Your task to perform on an android device: Go to Amazon Image 0: 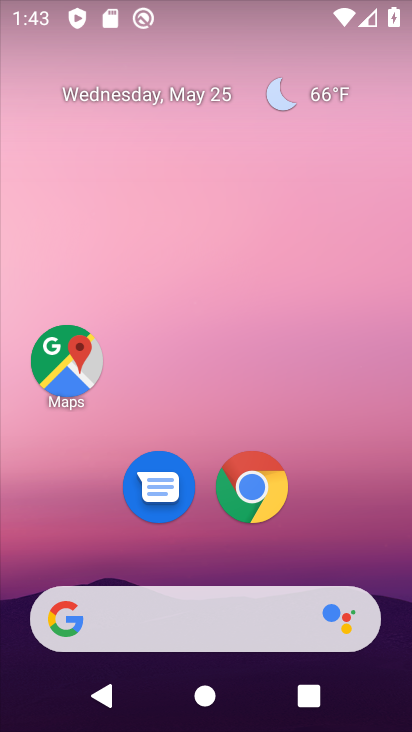
Step 0: click (255, 496)
Your task to perform on an android device: Go to Amazon Image 1: 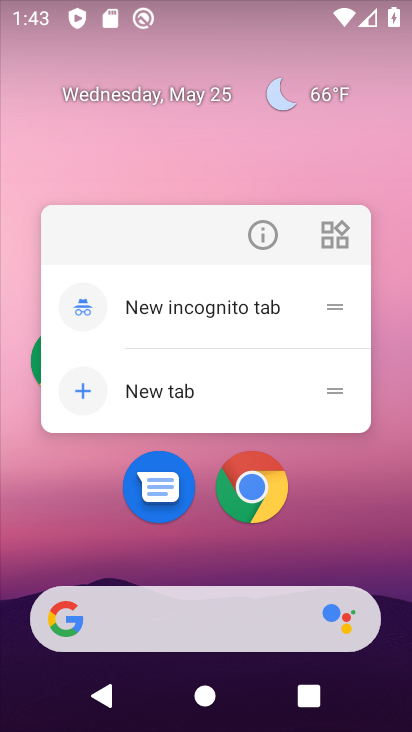
Step 1: click (261, 486)
Your task to perform on an android device: Go to Amazon Image 2: 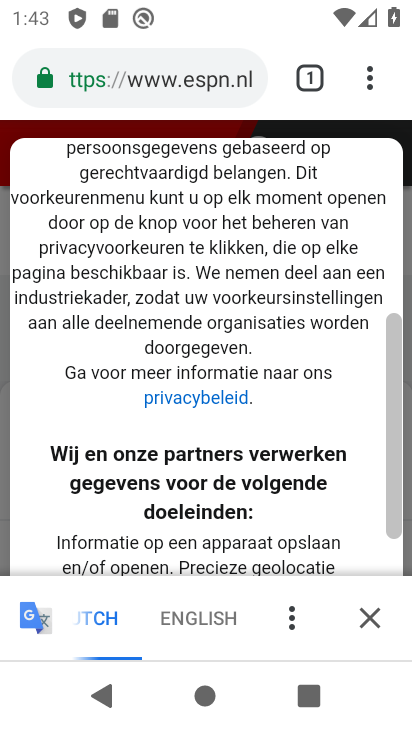
Step 2: click (308, 87)
Your task to perform on an android device: Go to Amazon Image 3: 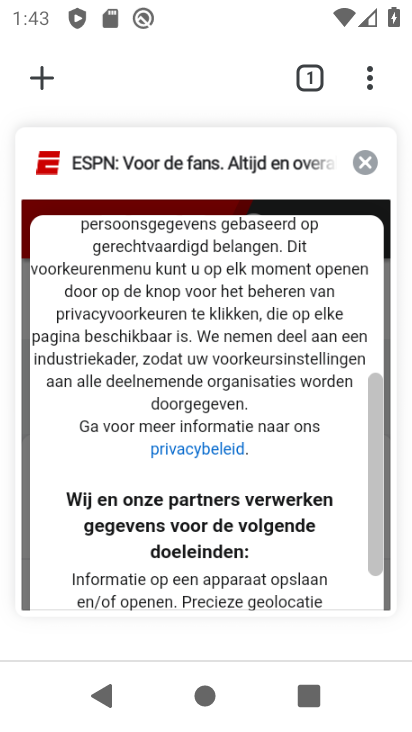
Step 3: click (45, 76)
Your task to perform on an android device: Go to Amazon Image 4: 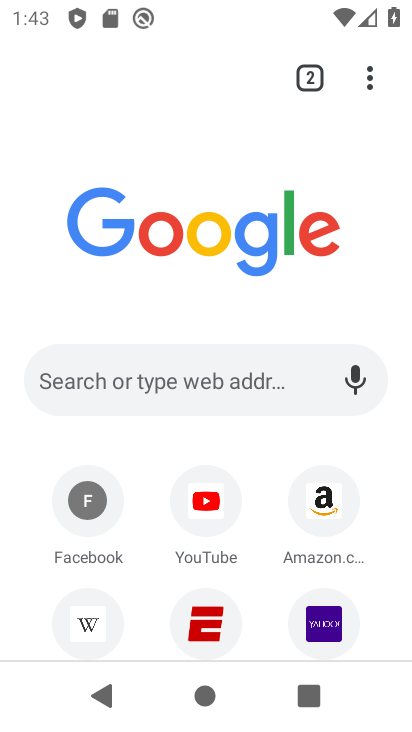
Step 4: drag from (254, 603) to (196, 213)
Your task to perform on an android device: Go to Amazon Image 5: 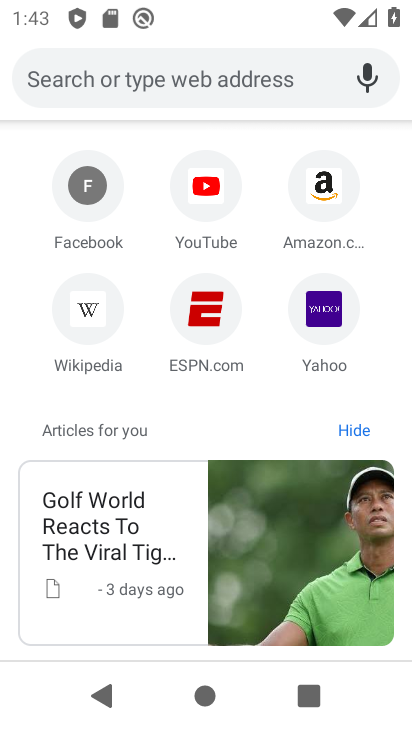
Step 5: click (325, 200)
Your task to perform on an android device: Go to Amazon Image 6: 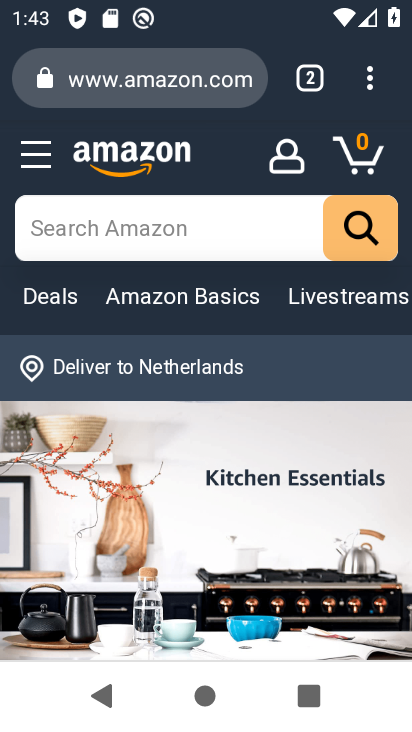
Step 6: task complete